Your task to perform on an android device: Open settings on Google Maps Image 0: 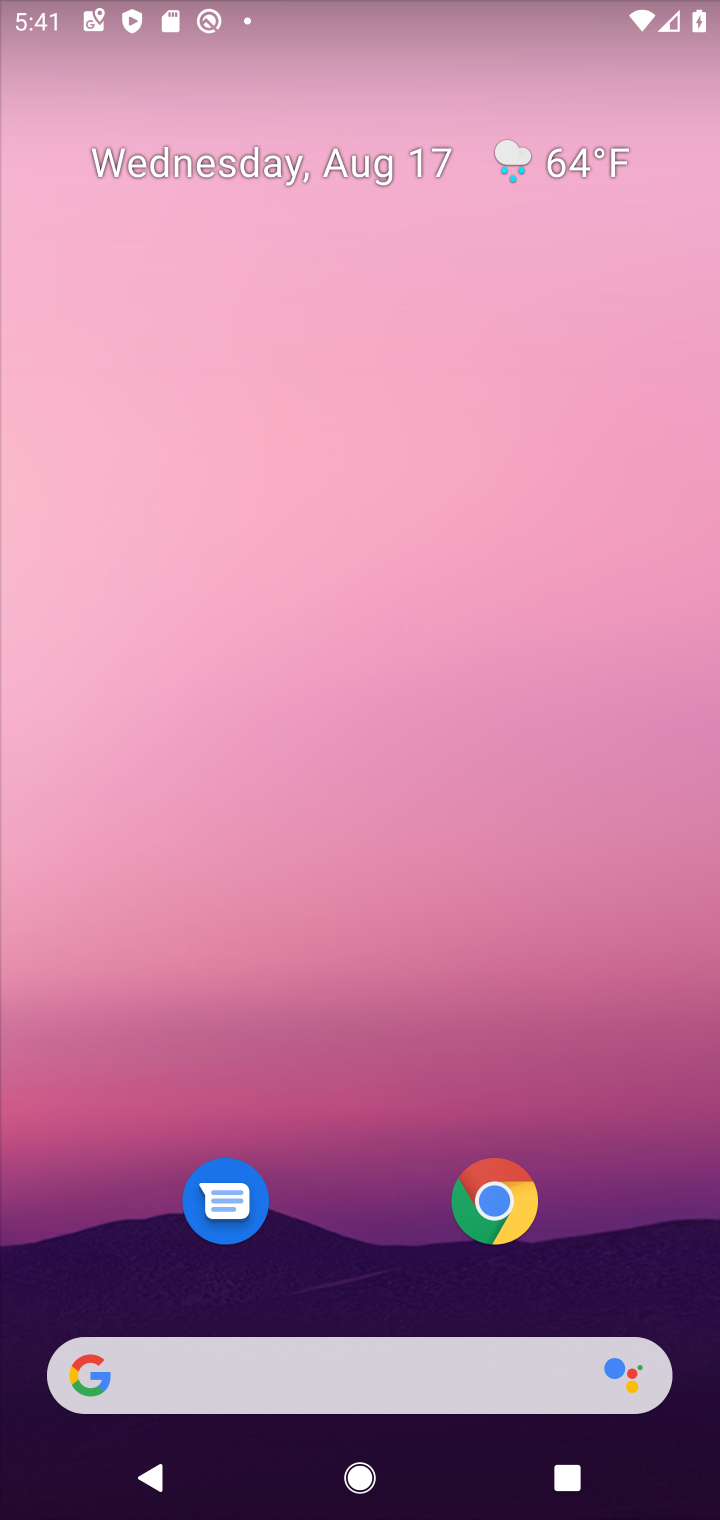
Step 0: press home button
Your task to perform on an android device: Open settings on Google Maps Image 1: 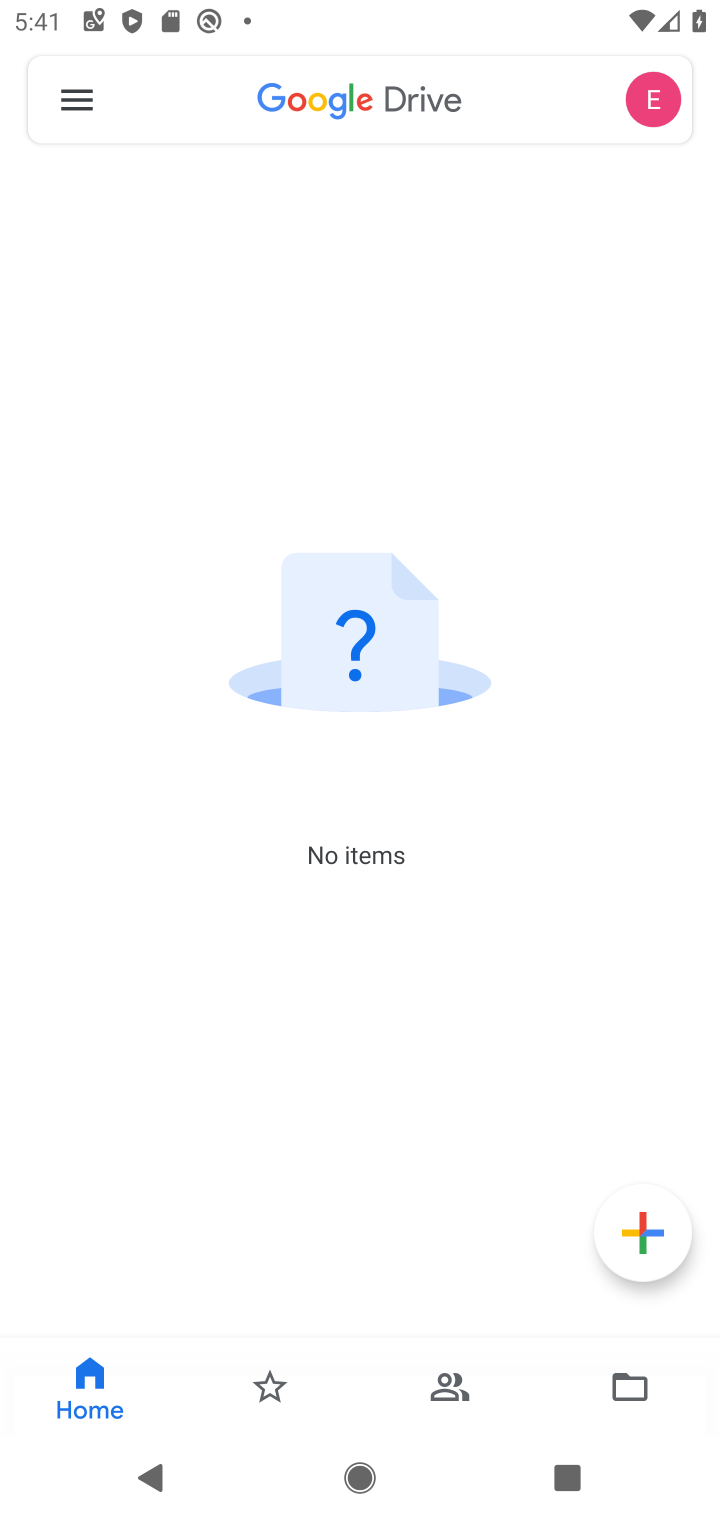
Step 1: drag from (363, 1250) to (348, 202)
Your task to perform on an android device: Open settings on Google Maps Image 2: 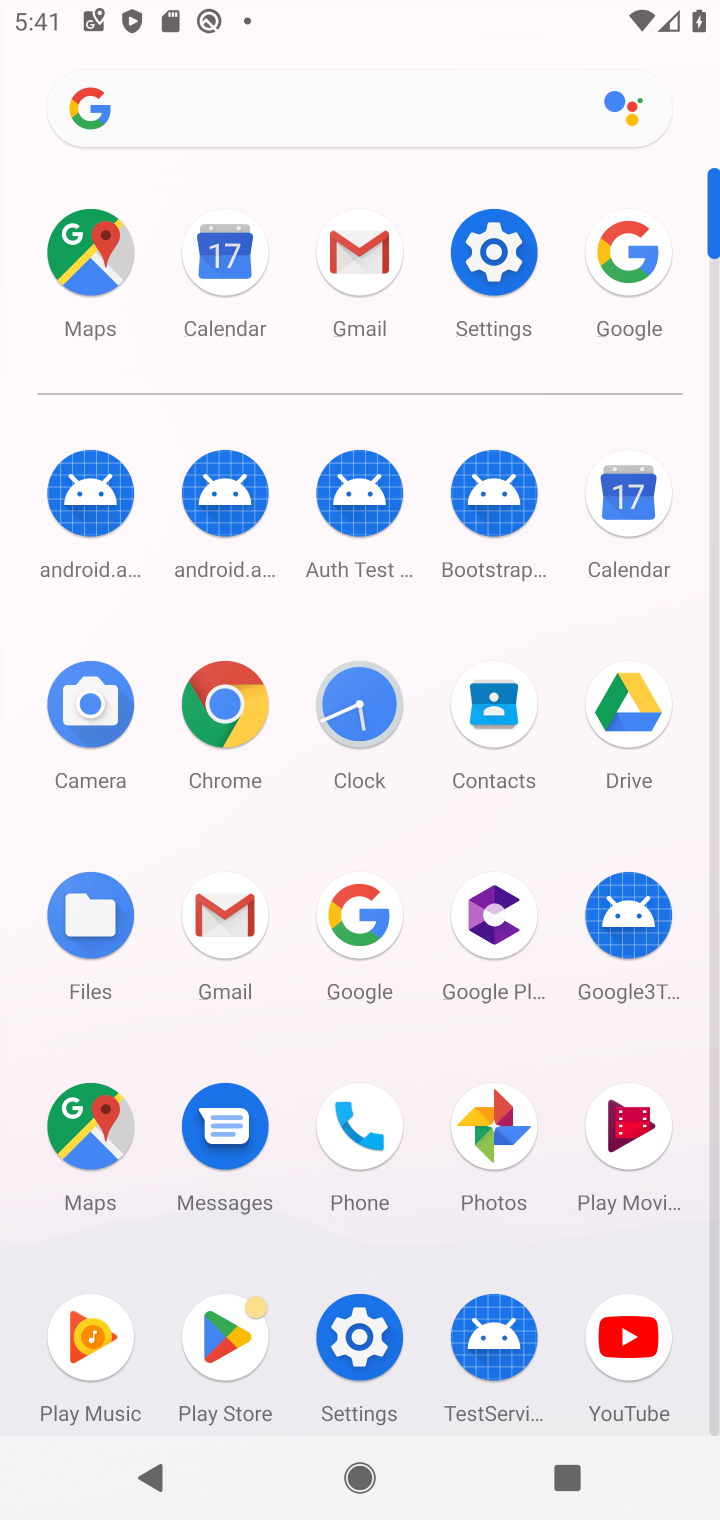
Step 2: click (88, 1130)
Your task to perform on an android device: Open settings on Google Maps Image 3: 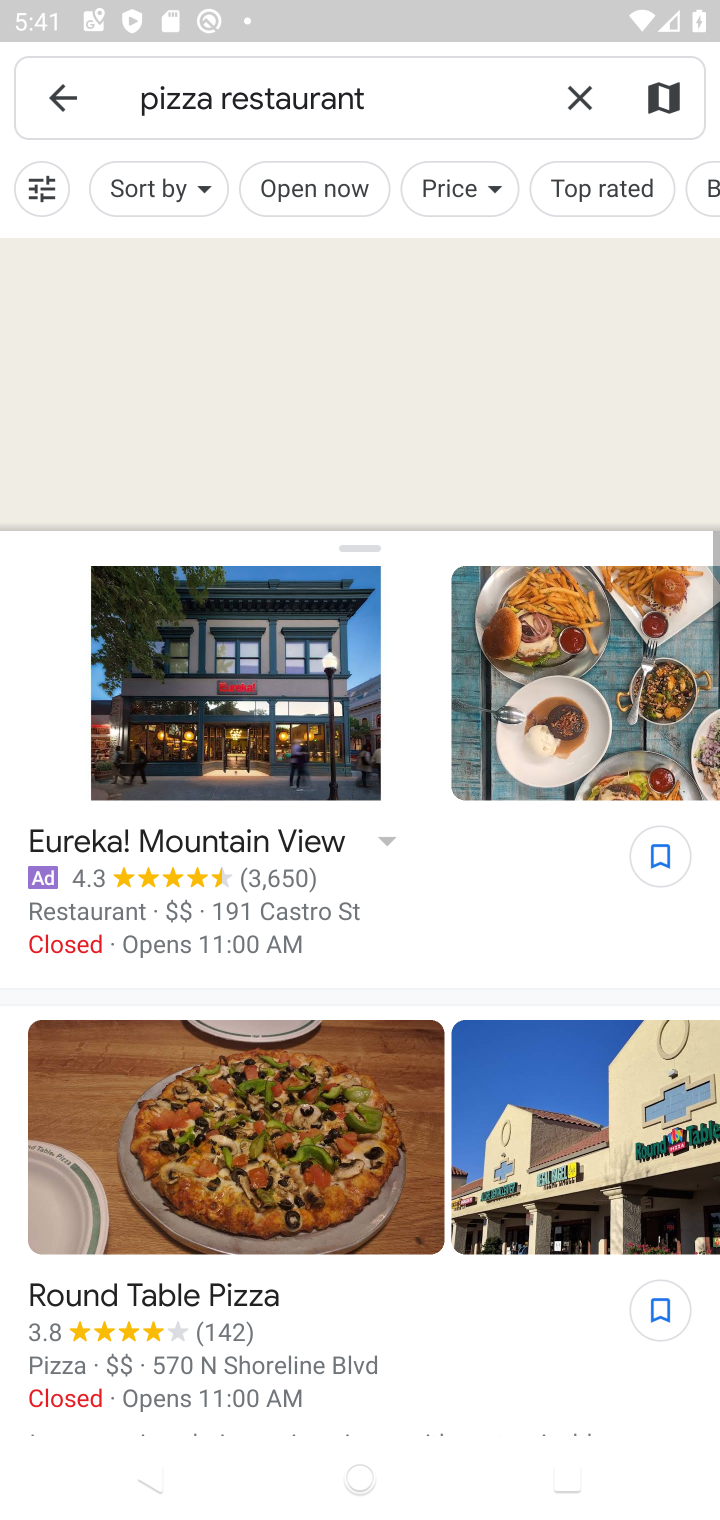
Step 3: click (55, 107)
Your task to perform on an android device: Open settings on Google Maps Image 4: 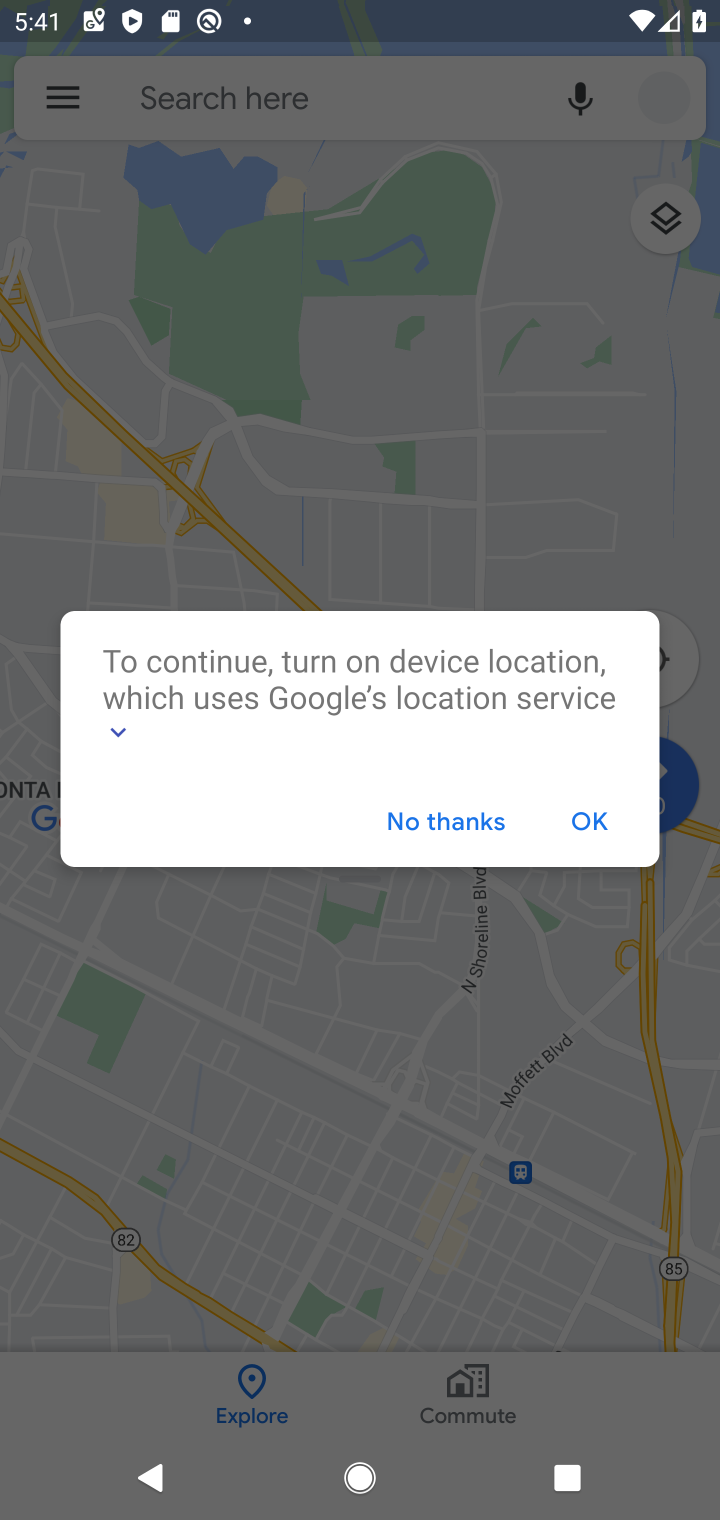
Step 4: click (462, 814)
Your task to perform on an android device: Open settings on Google Maps Image 5: 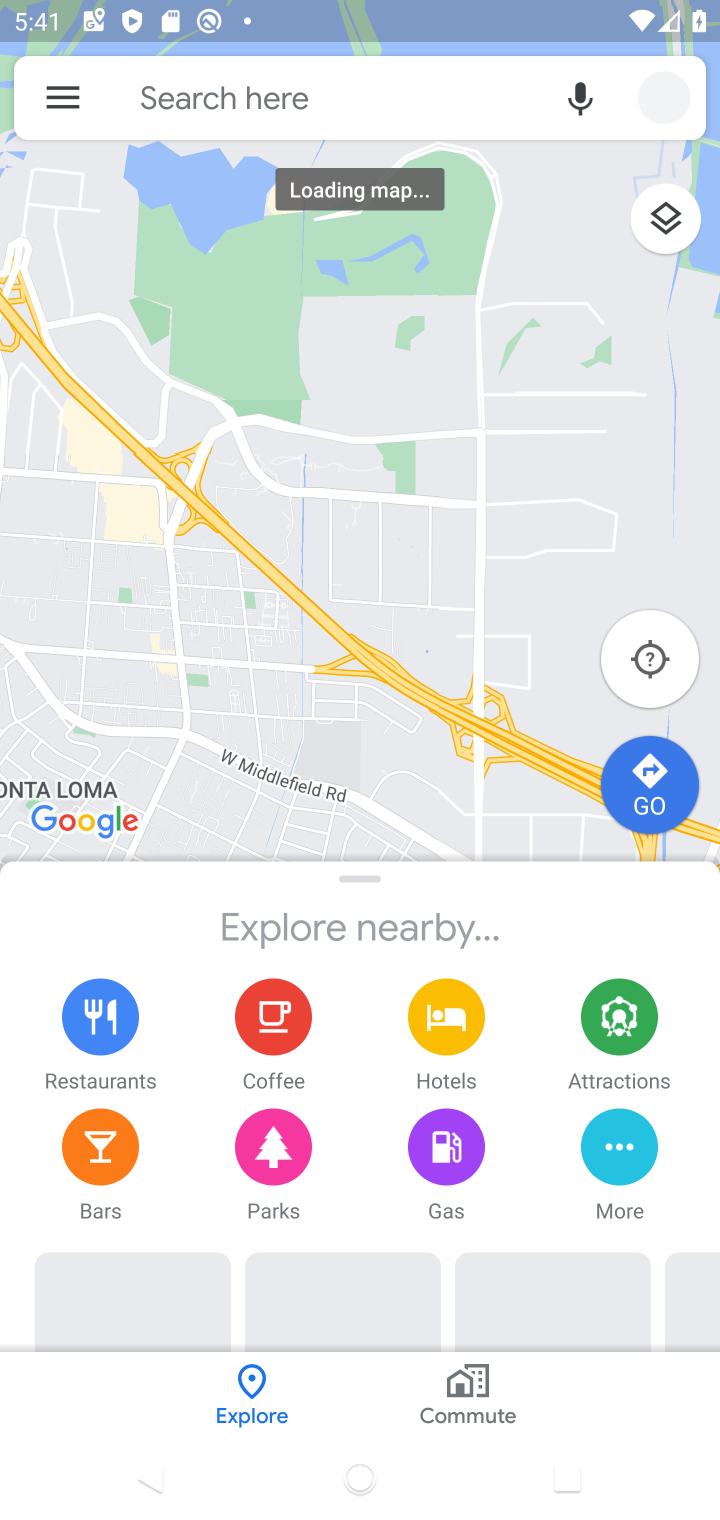
Step 5: click (47, 106)
Your task to perform on an android device: Open settings on Google Maps Image 6: 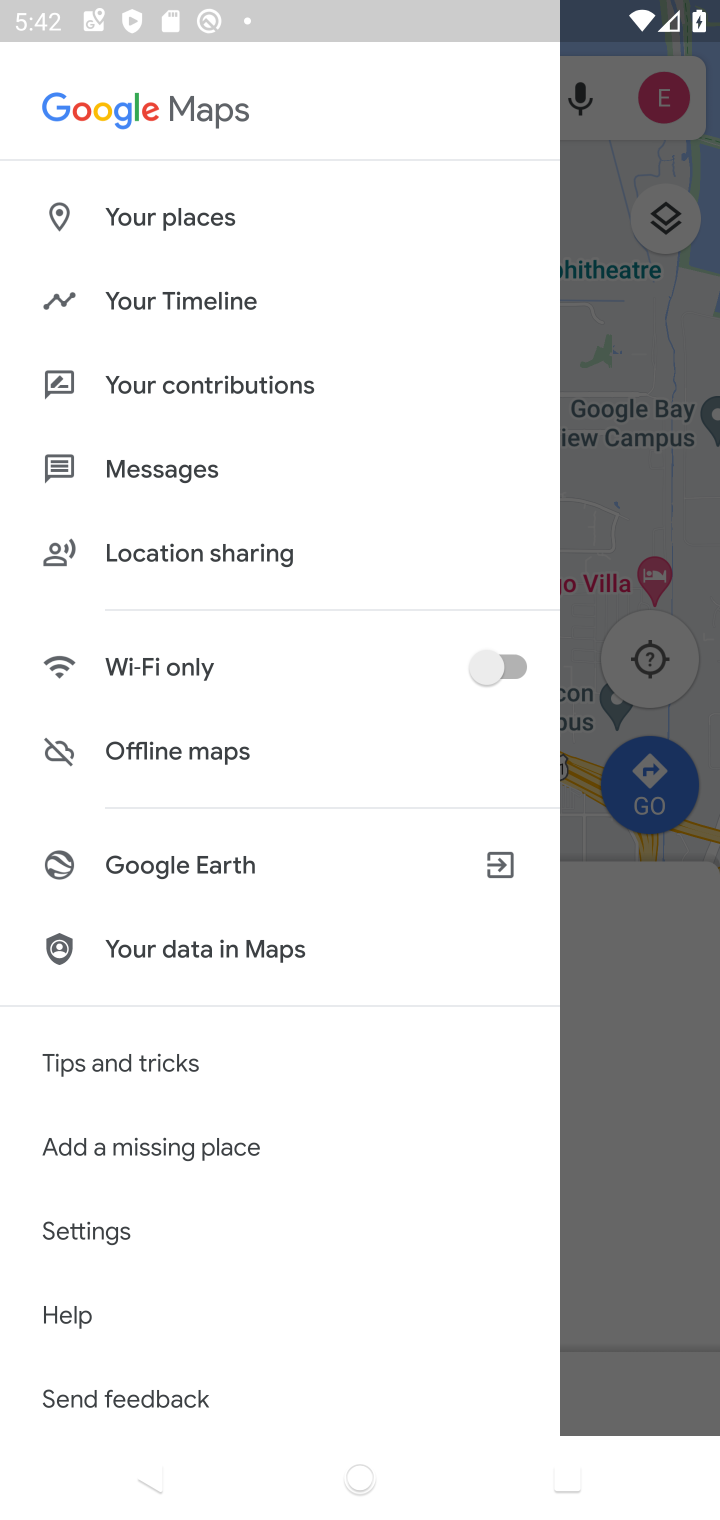
Step 6: click (100, 1230)
Your task to perform on an android device: Open settings on Google Maps Image 7: 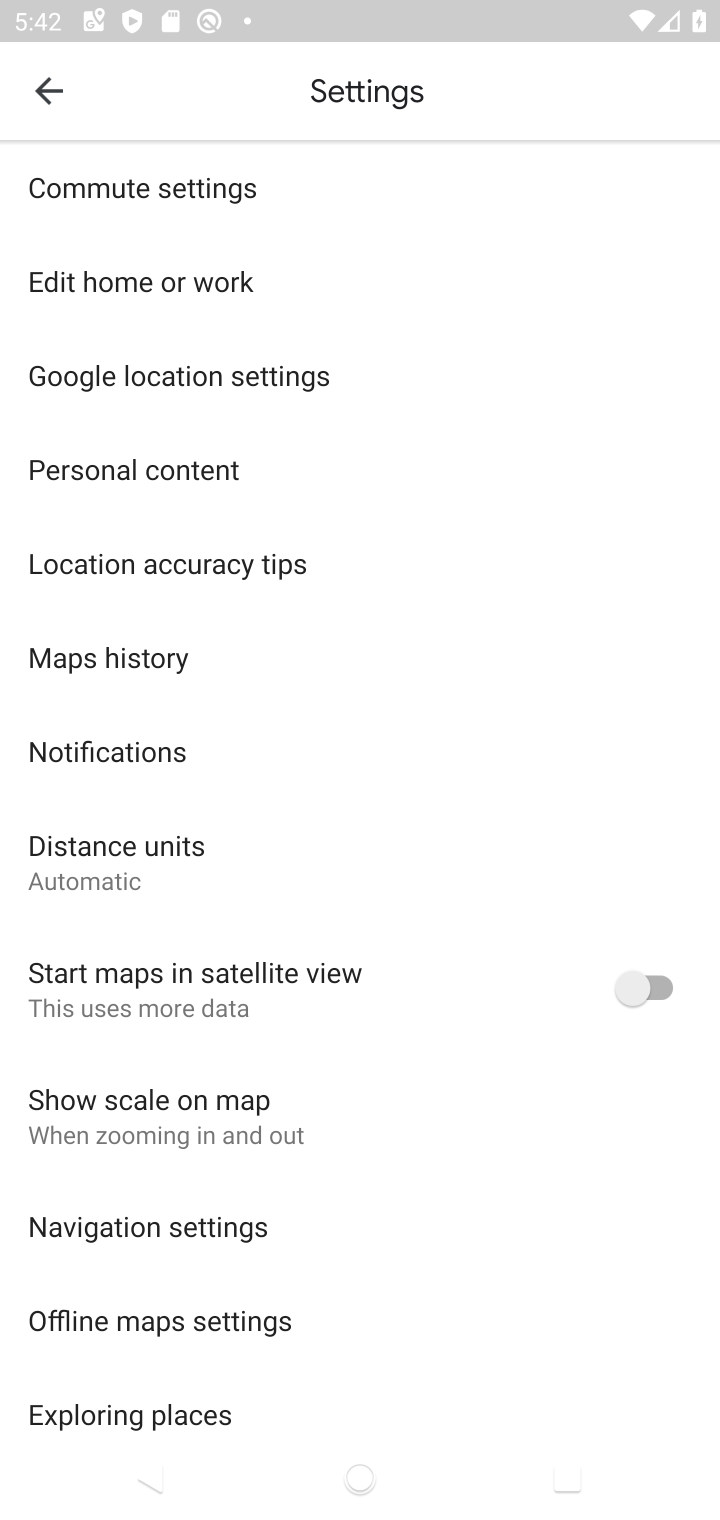
Step 7: task complete